Your task to perform on an android device: change alarm snooze length Image 0: 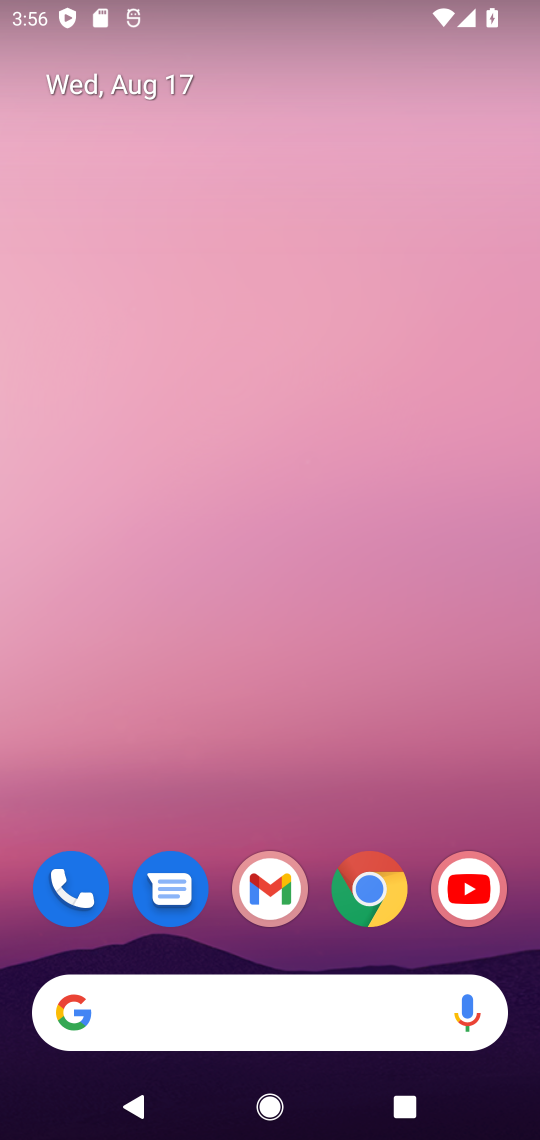
Step 0: drag from (283, 815) to (367, 133)
Your task to perform on an android device: change alarm snooze length Image 1: 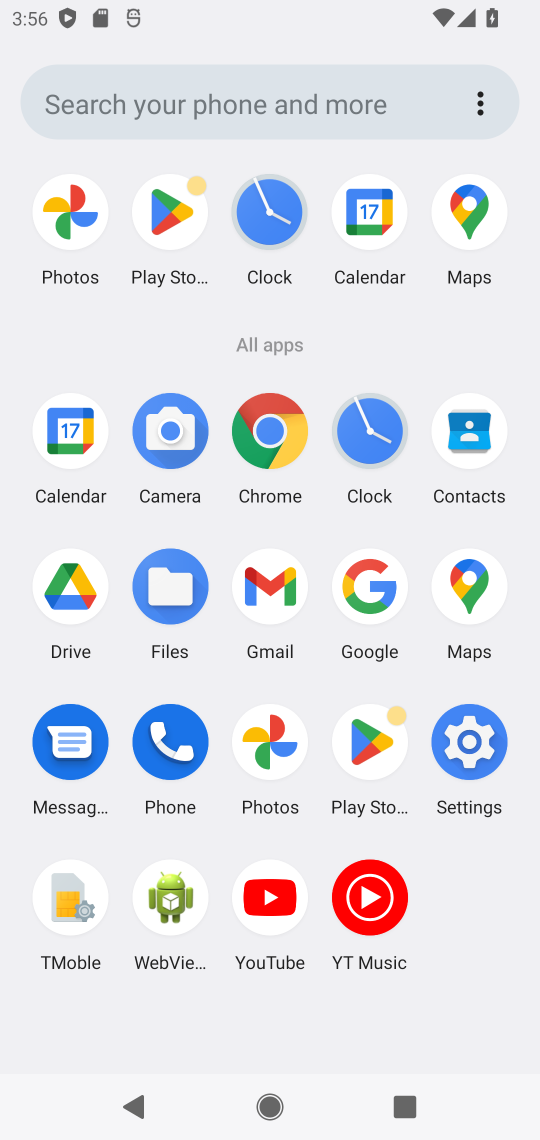
Step 1: click (269, 229)
Your task to perform on an android device: change alarm snooze length Image 2: 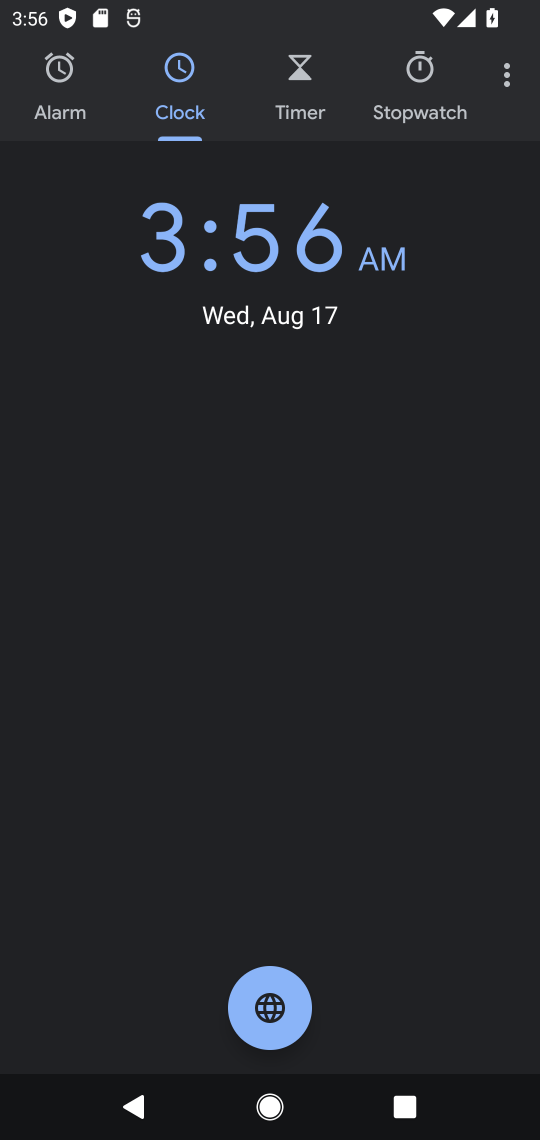
Step 2: click (507, 79)
Your task to perform on an android device: change alarm snooze length Image 3: 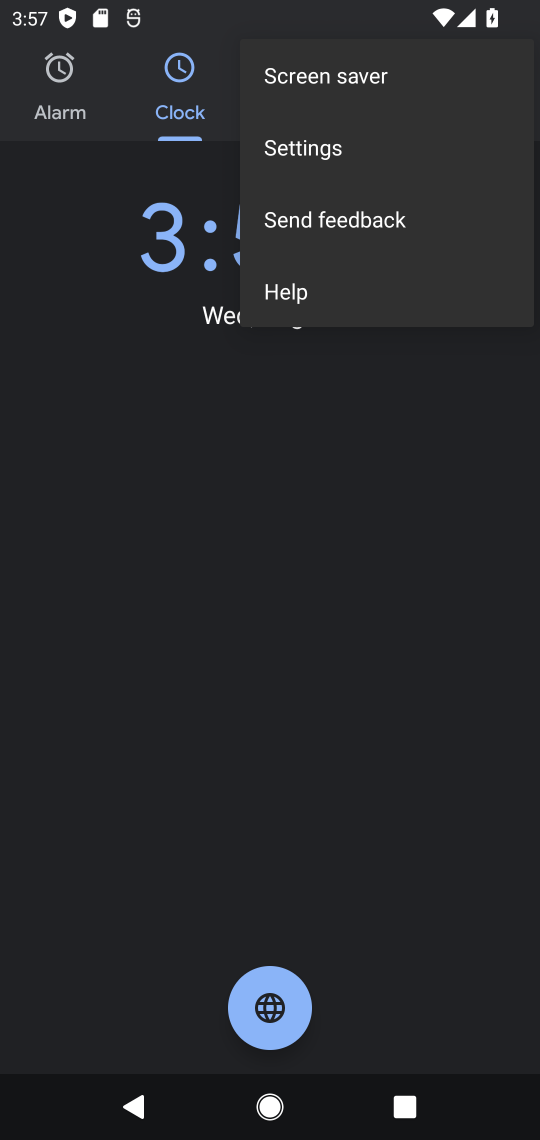
Step 3: click (307, 144)
Your task to perform on an android device: change alarm snooze length Image 4: 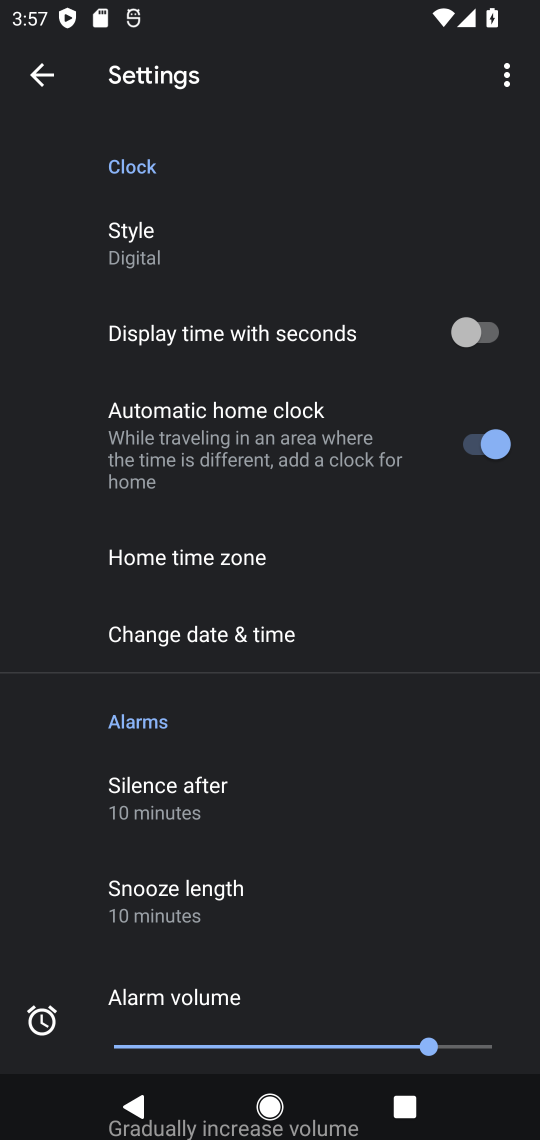
Step 4: click (204, 888)
Your task to perform on an android device: change alarm snooze length Image 5: 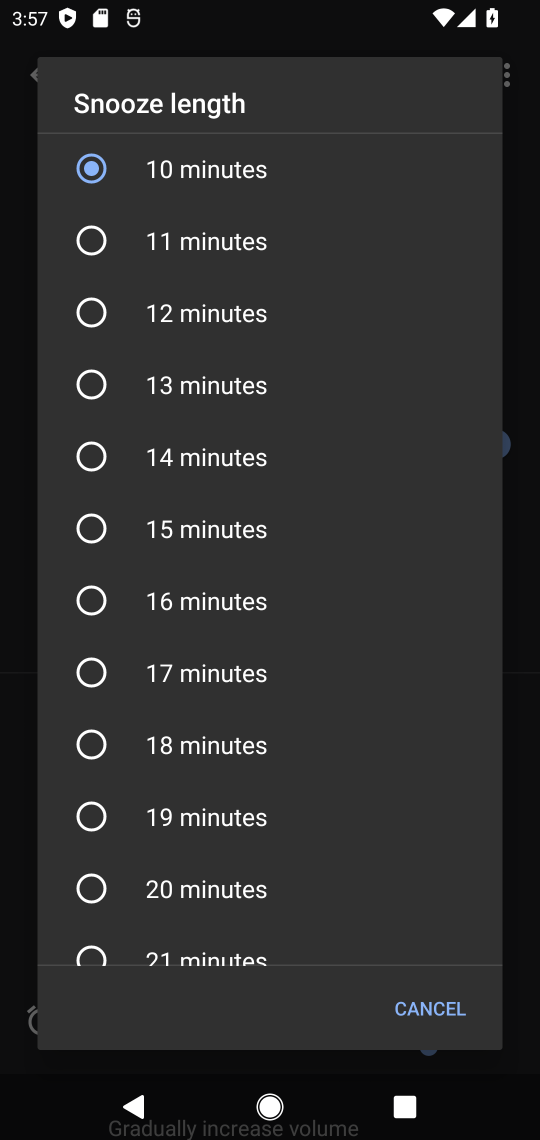
Step 5: click (95, 545)
Your task to perform on an android device: change alarm snooze length Image 6: 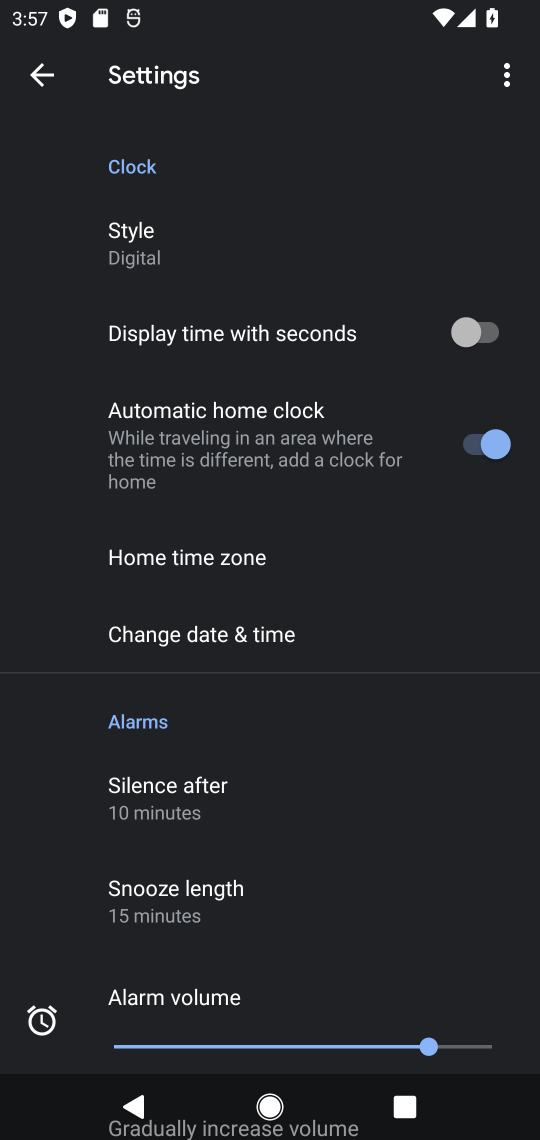
Step 6: task complete